Your task to perform on an android device: Open Wikipedia Image 0: 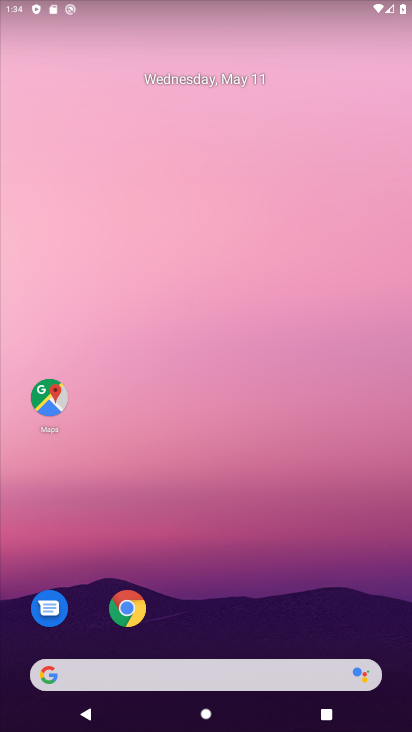
Step 0: drag from (158, 640) to (84, 392)
Your task to perform on an android device: Open Wikipedia Image 1: 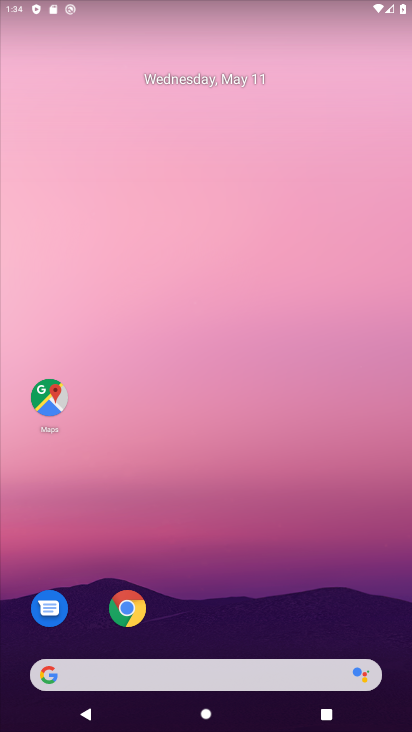
Step 1: drag from (212, 618) to (215, 346)
Your task to perform on an android device: Open Wikipedia Image 2: 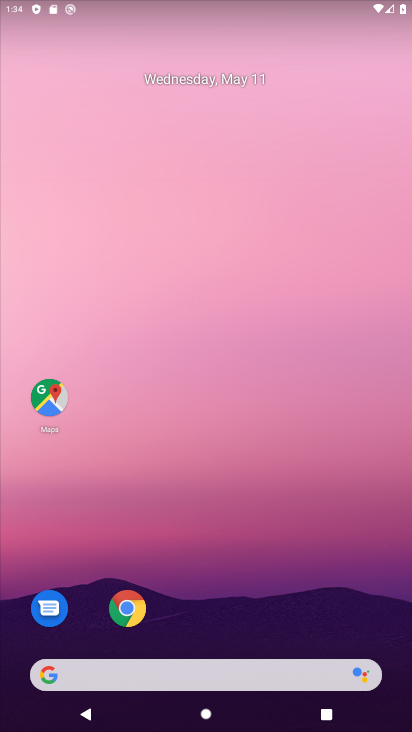
Step 2: click (123, 614)
Your task to perform on an android device: Open Wikipedia Image 3: 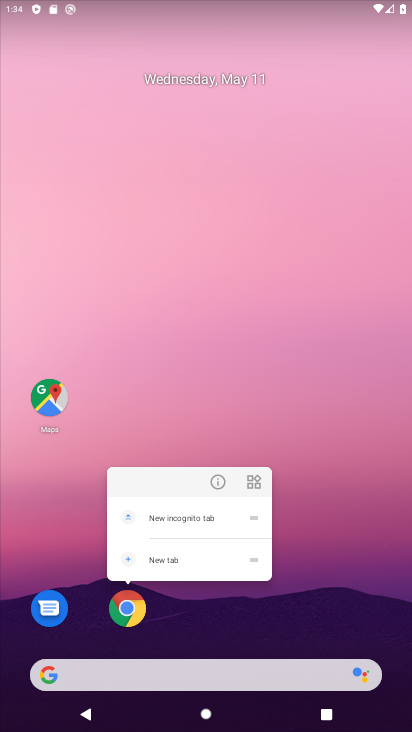
Step 3: click (123, 614)
Your task to perform on an android device: Open Wikipedia Image 4: 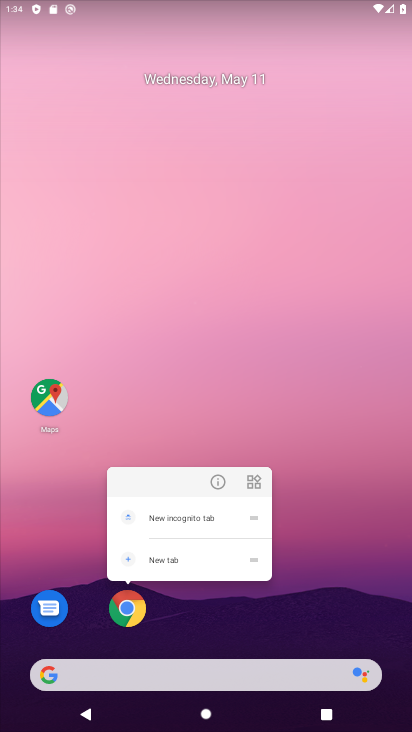
Step 4: click (123, 614)
Your task to perform on an android device: Open Wikipedia Image 5: 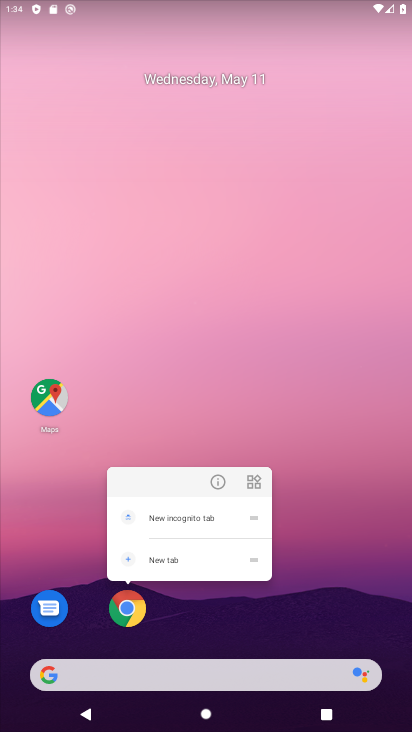
Step 5: click (123, 614)
Your task to perform on an android device: Open Wikipedia Image 6: 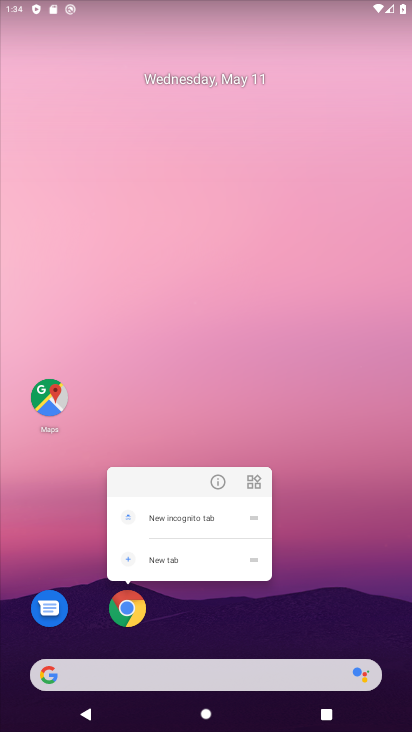
Step 6: click (123, 614)
Your task to perform on an android device: Open Wikipedia Image 7: 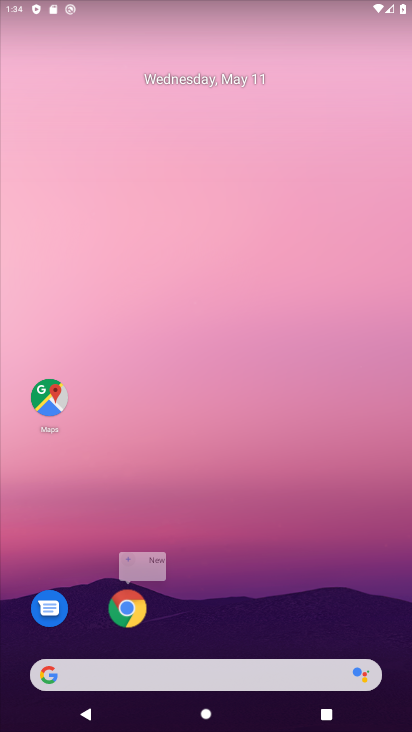
Step 7: click (123, 614)
Your task to perform on an android device: Open Wikipedia Image 8: 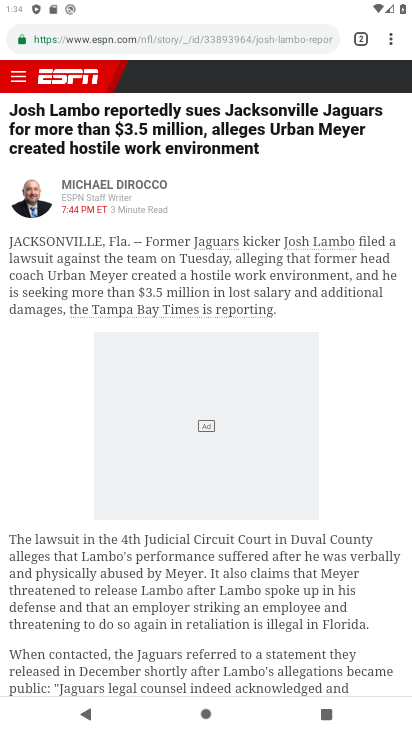
Step 8: click (361, 45)
Your task to perform on an android device: Open Wikipedia Image 9: 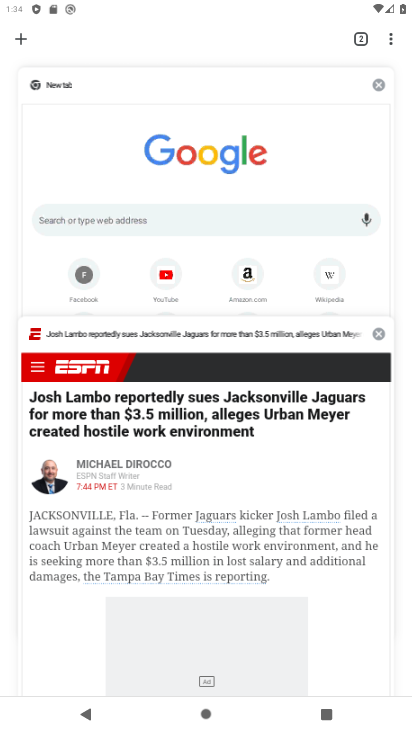
Step 9: click (263, 164)
Your task to perform on an android device: Open Wikipedia Image 10: 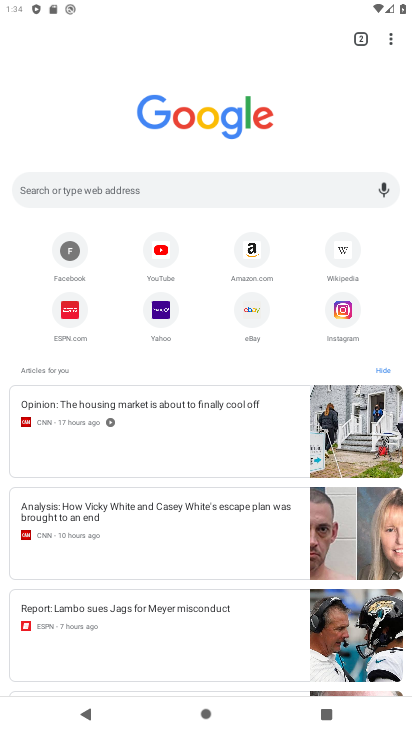
Step 10: click (349, 249)
Your task to perform on an android device: Open Wikipedia Image 11: 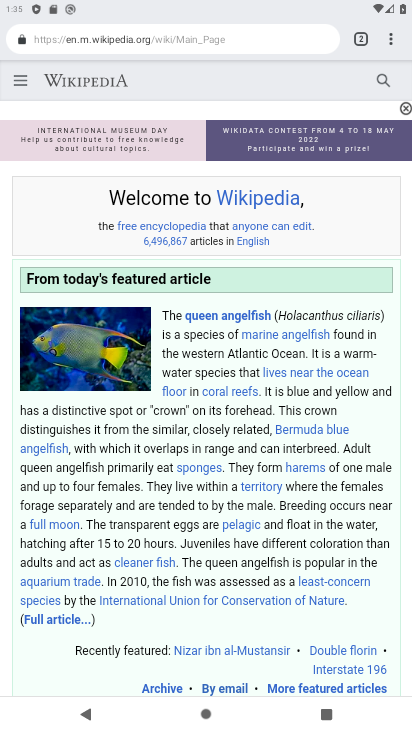
Step 11: task complete